Your task to perform on an android device: empty trash in google photos Image 0: 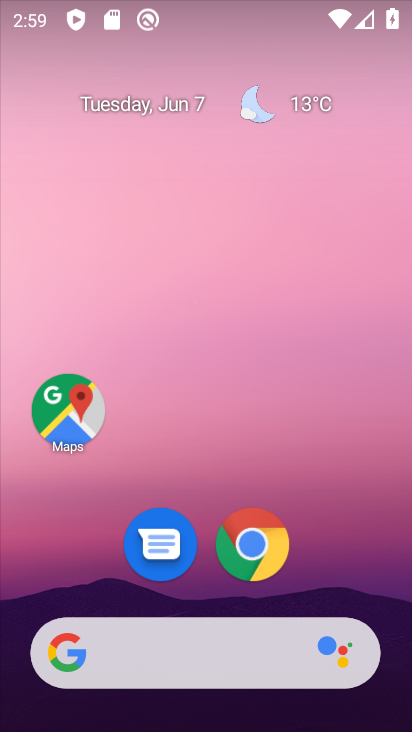
Step 0: drag from (237, 590) to (285, 398)
Your task to perform on an android device: empty trash in google photos Image 1: 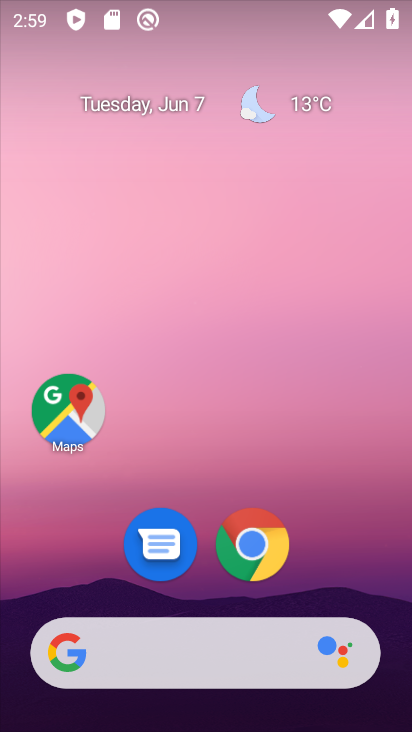
Step 1: drag from (317, 588) to (300, 2)
Your task to perform on an android device: empty trash in google photos Image 2: 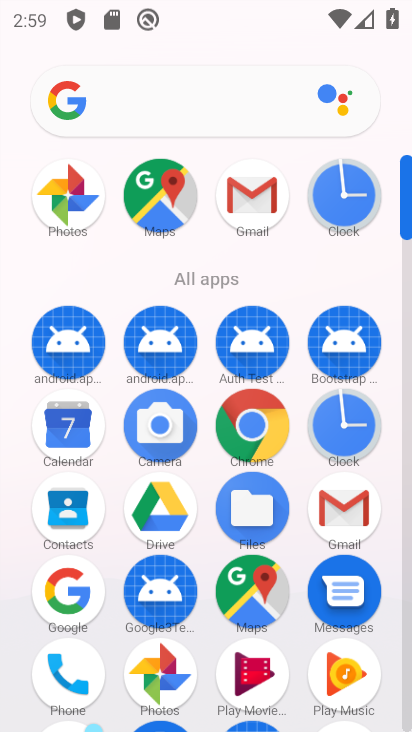
Step 2: click (159, 667)
Your task to perform on an android device: empty trash in google photos Image 3: 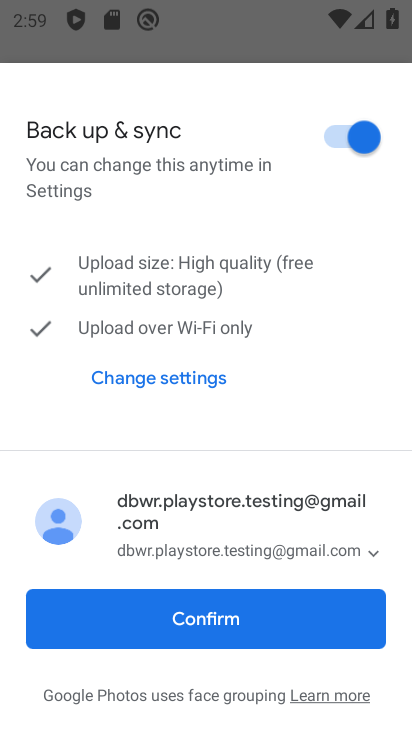
Step 3: click (205, 624)
Your task to perform on an android device: empty trash in google photos Image 4: 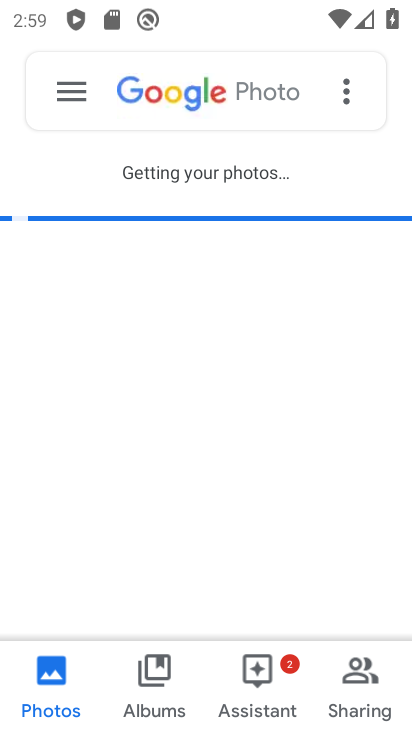
Step 4: click (67, 81)
Your task to perform on an android device: empty trash in google photos Image 5: 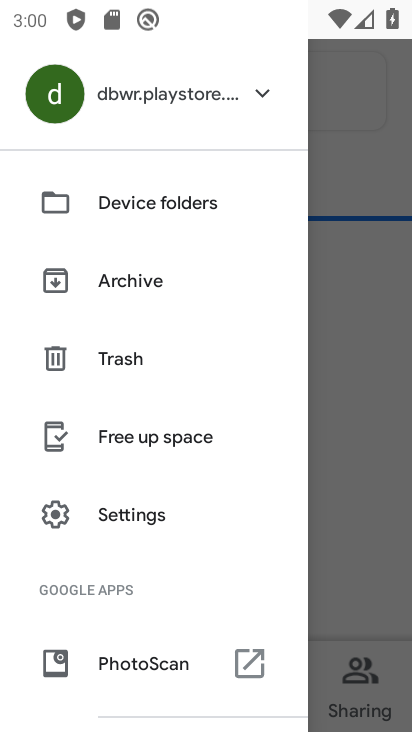
Step 5: click (150, 350)
Your task to perform on an android device: empty trash in google photos Image 6: 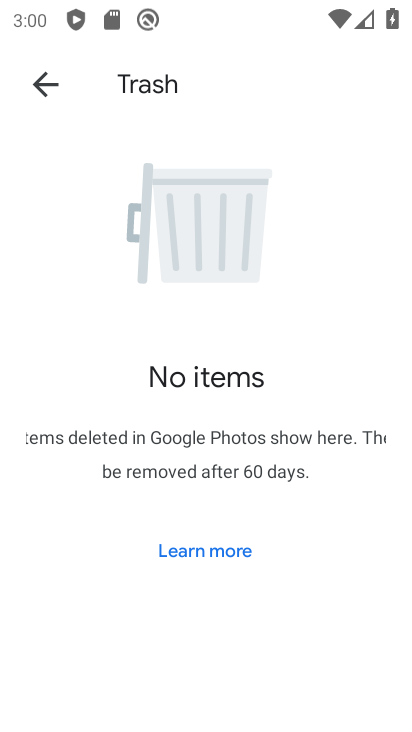
Step 6: task complete